Your task to perform on an android device: clear history in the chrome app Image 0: 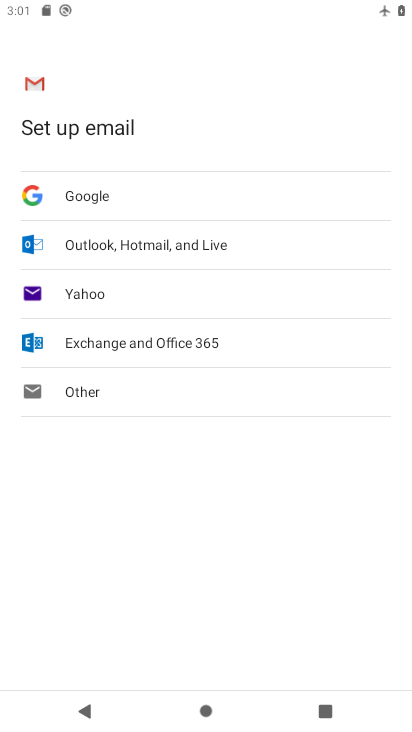
Step 0: press home button
Your task to perform on an android device: clear history in the chrome app Image 1: 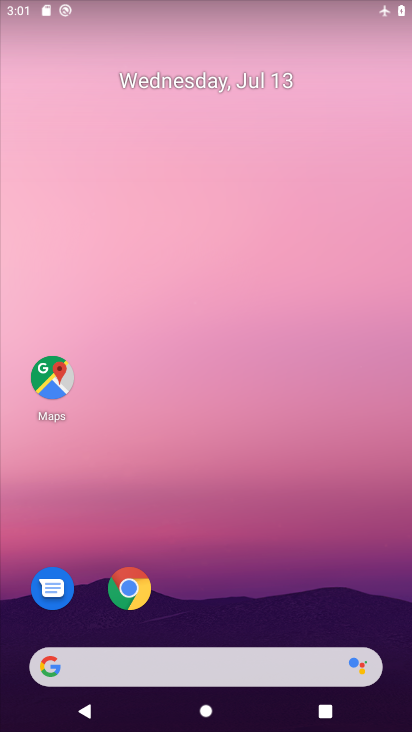
Step 1: click (123, 584)
Your task to perform on an android device: clear history in the chrome app Image 2: 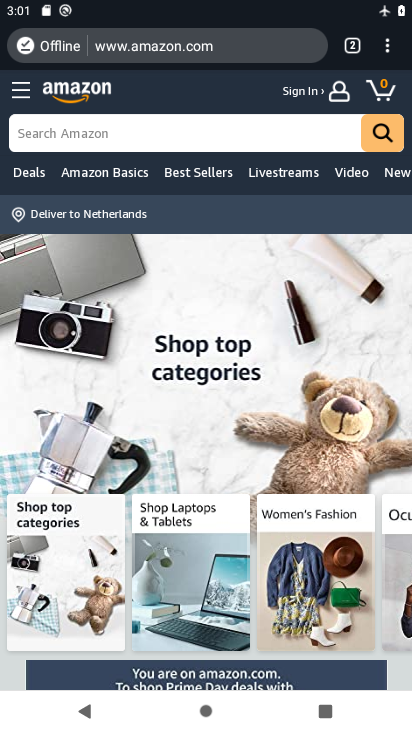
Step 2: drag from (388, 47) to (244, 498)
Your task to perform on an android device: clear history in the chrome app Image 3: 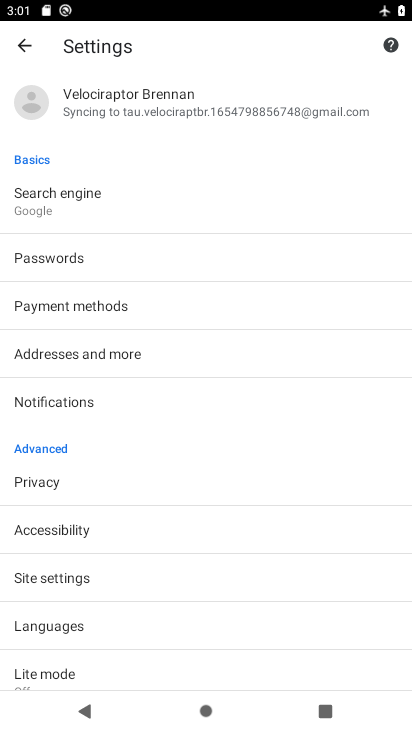
Step 3: drag from (119, 508) to (137, 134)
Your task to perform on an android device: clear history in the chrome app Image 4: 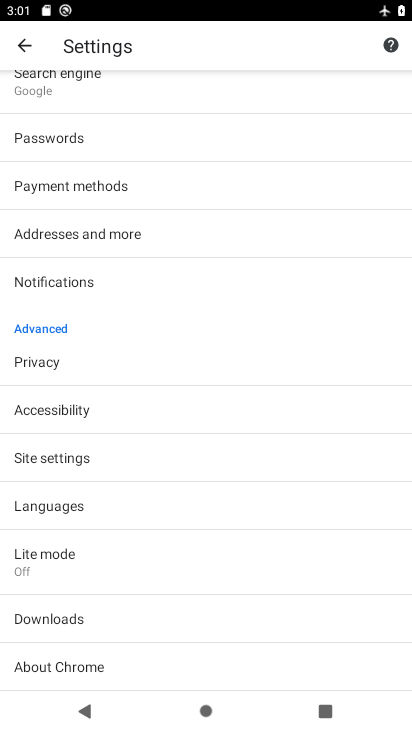
Step 4: click (28, 364)
Your task to perform on an android device: clear history in the chrome app Image 5: 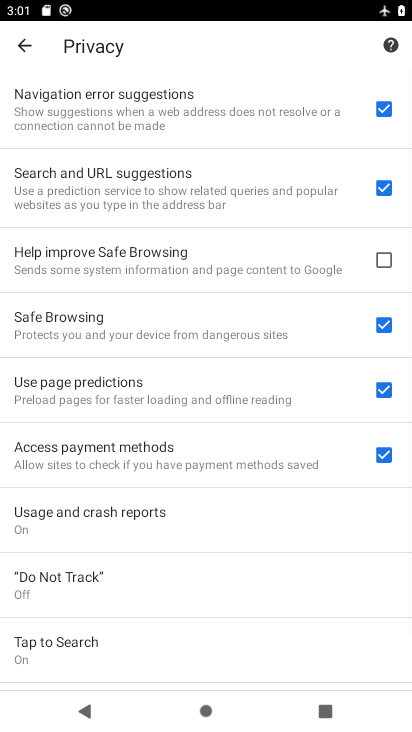
Step 5: drag from (148, 531) to (121, 49)
Your task to perform on an android device: clear history in the chrome app Image 6: 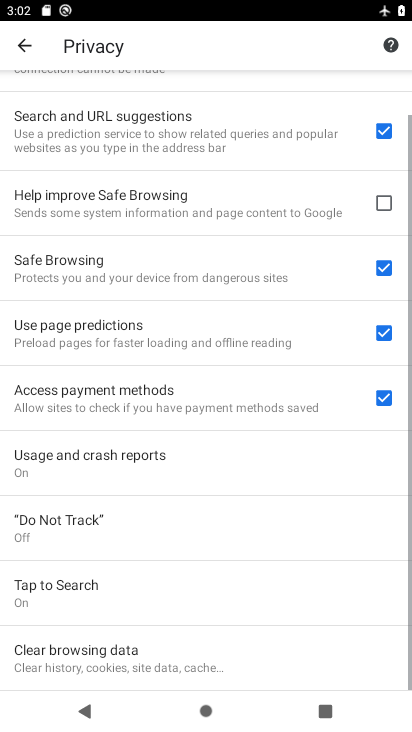
Step 6: click (106, 655)
Your task to perform on an android device: clear history in the chrome app Image 7: 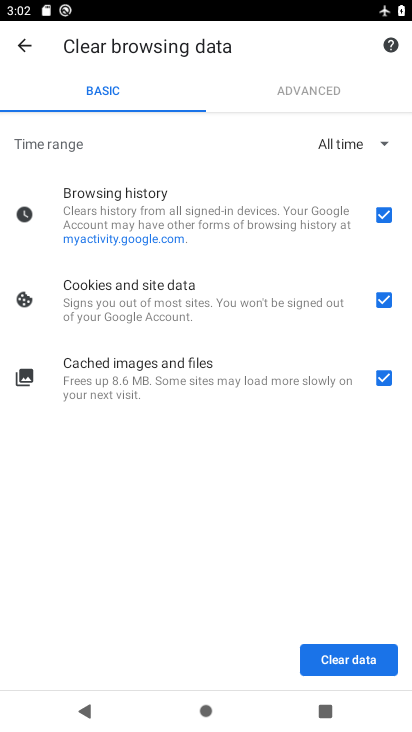
Step 7: click (327, 655)
Your task to perform on an android device: clear history in the chrome app Image 8: 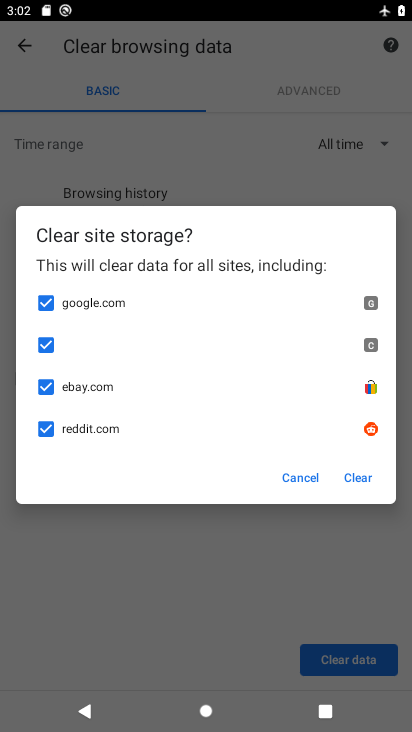
Step 8: click (358, 485)
Your task to perform on an android device: clear history in the chrome app Image 9: 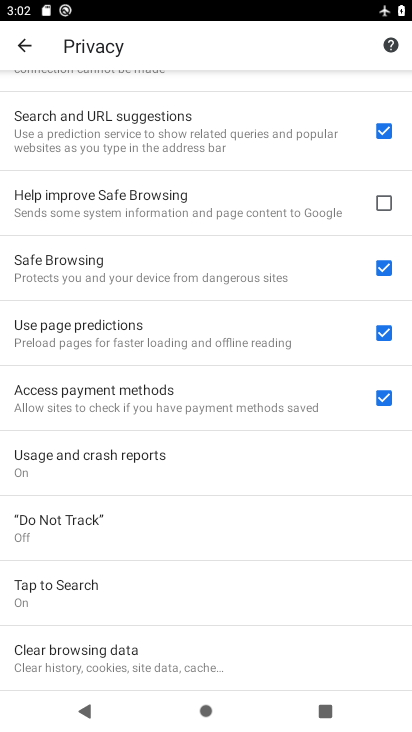
Step 9: task complete